Your task to perform on an android device: move a message to another label in the gmail app Image 0: 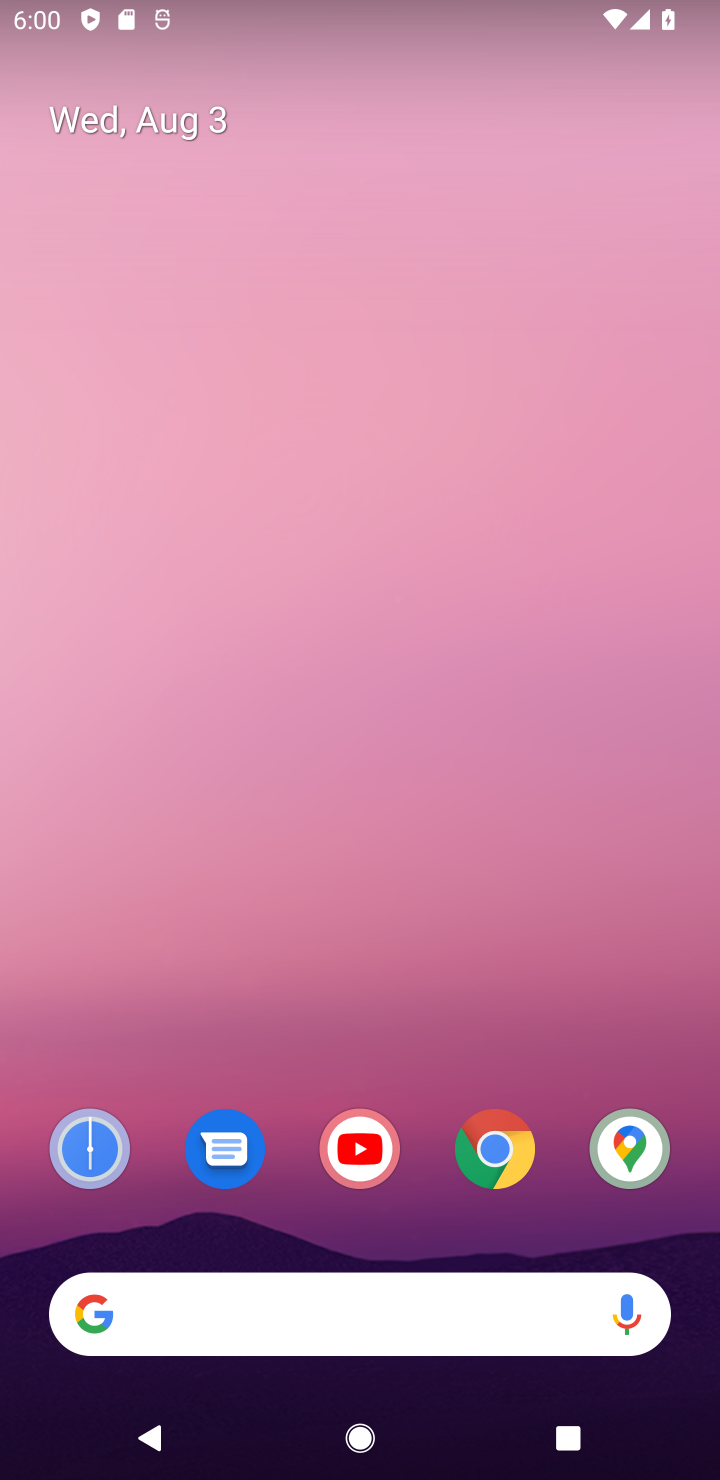
Step 0: drag from (332, 1050) to (319, 0)
Your task to perform on an android device: move a message to another label in the gmail app Image 1: 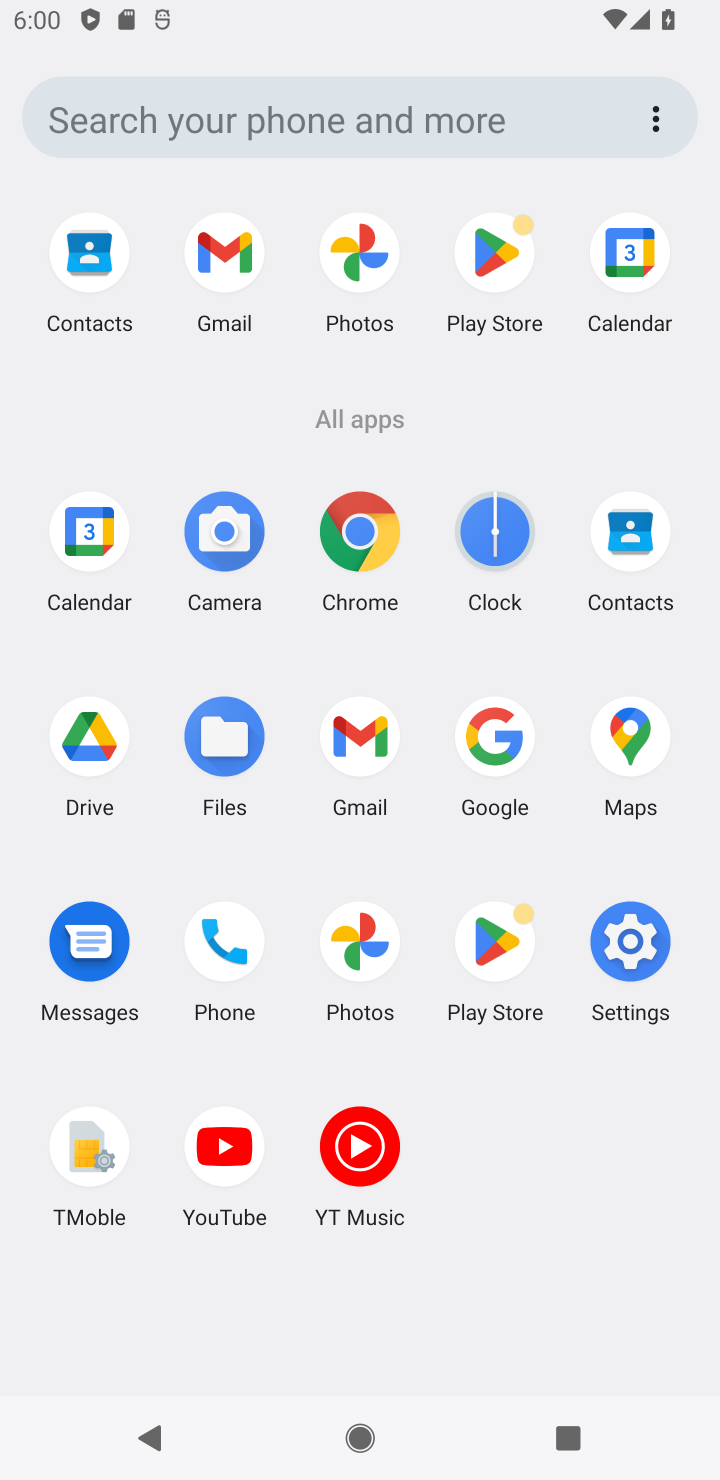
Step 1: click (372, 768)
Your task to perform on an android device: move a message to another label in the gmail app Image 2: 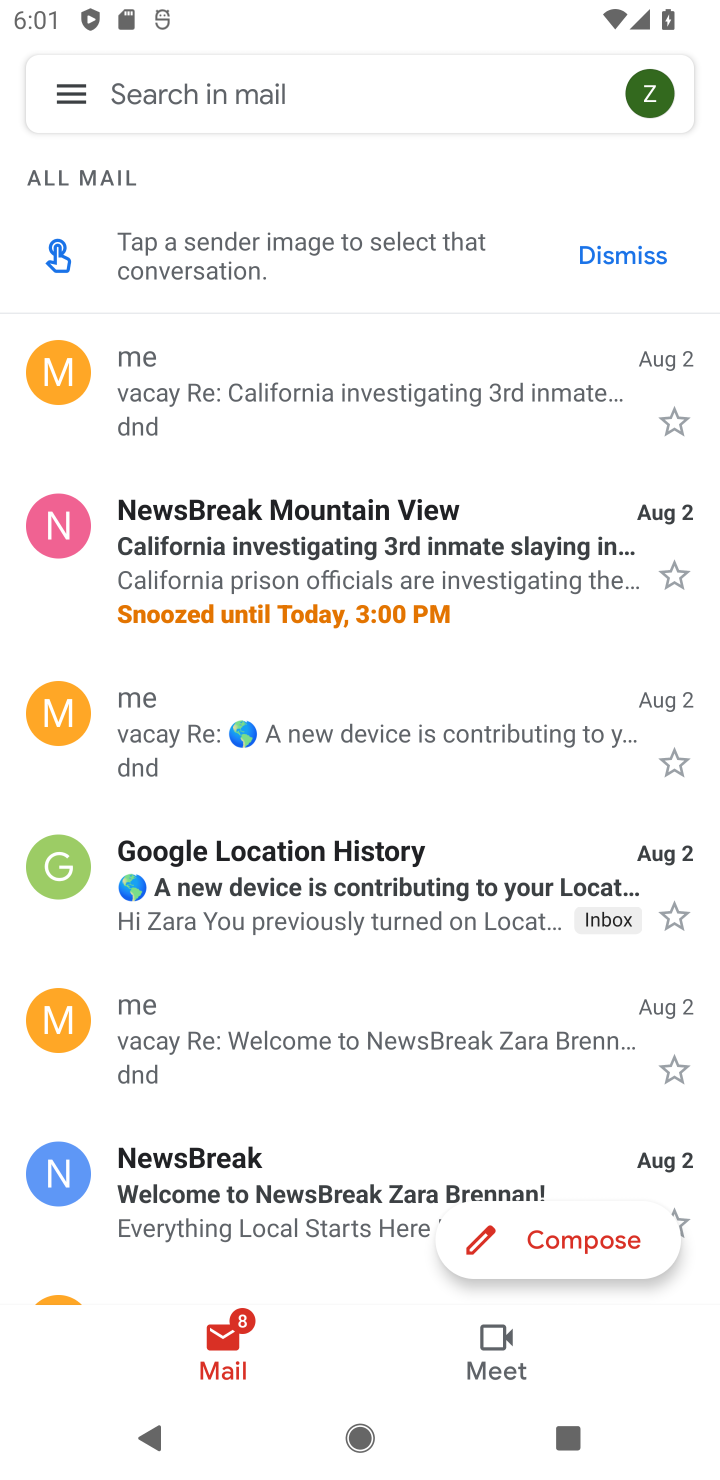
Step 2: click (135, 551)
Your task to perform on an android device: move a message to another label in the gmail app Image 3: 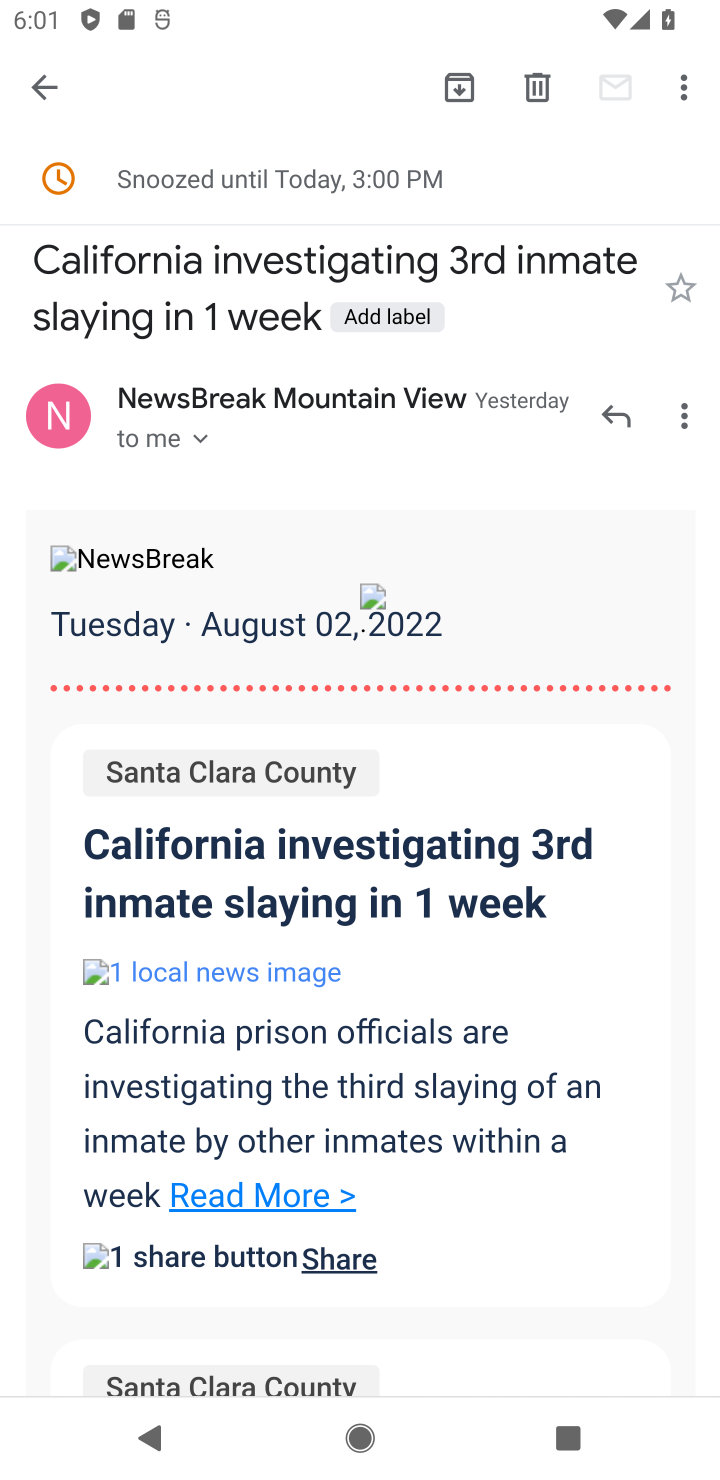
Step 3: click (385, 325)
Your task to perform on an android device: move a message to another label in the gmail app Image 4: 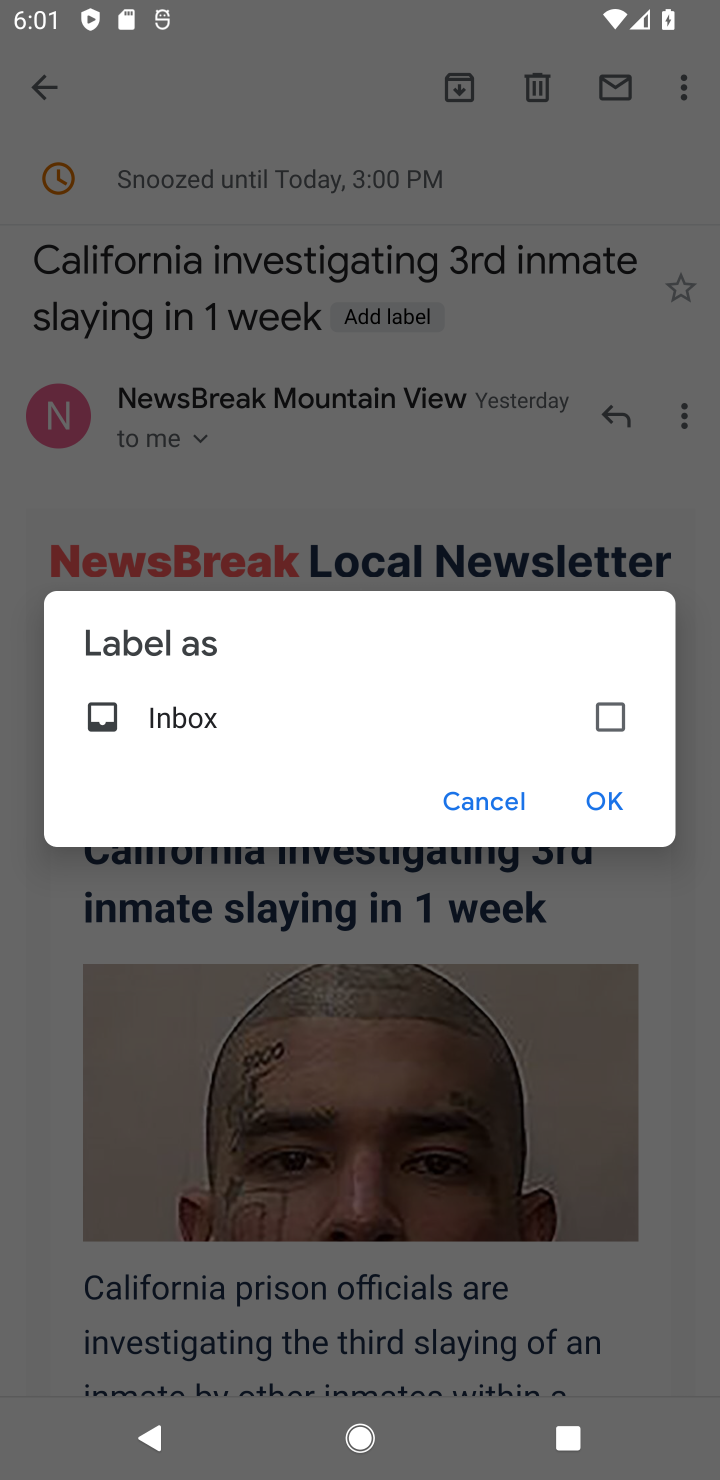
Step 4: click (601, 732)
Your task to perform on an android device: move a message to another label in the gmail app Image 5: 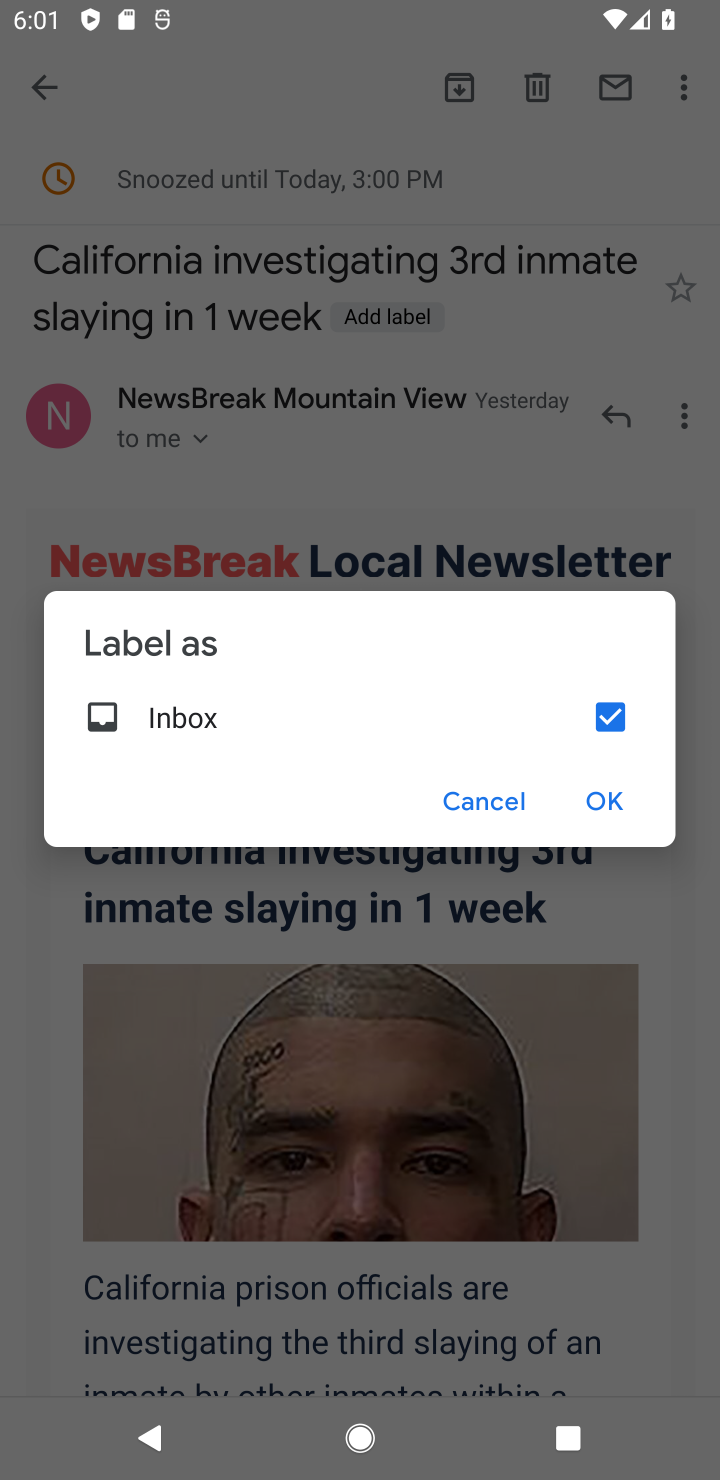
Step 5: click (611, 819)
Your task to perform on an android device: move a message to another label in the gmail app Image 6: 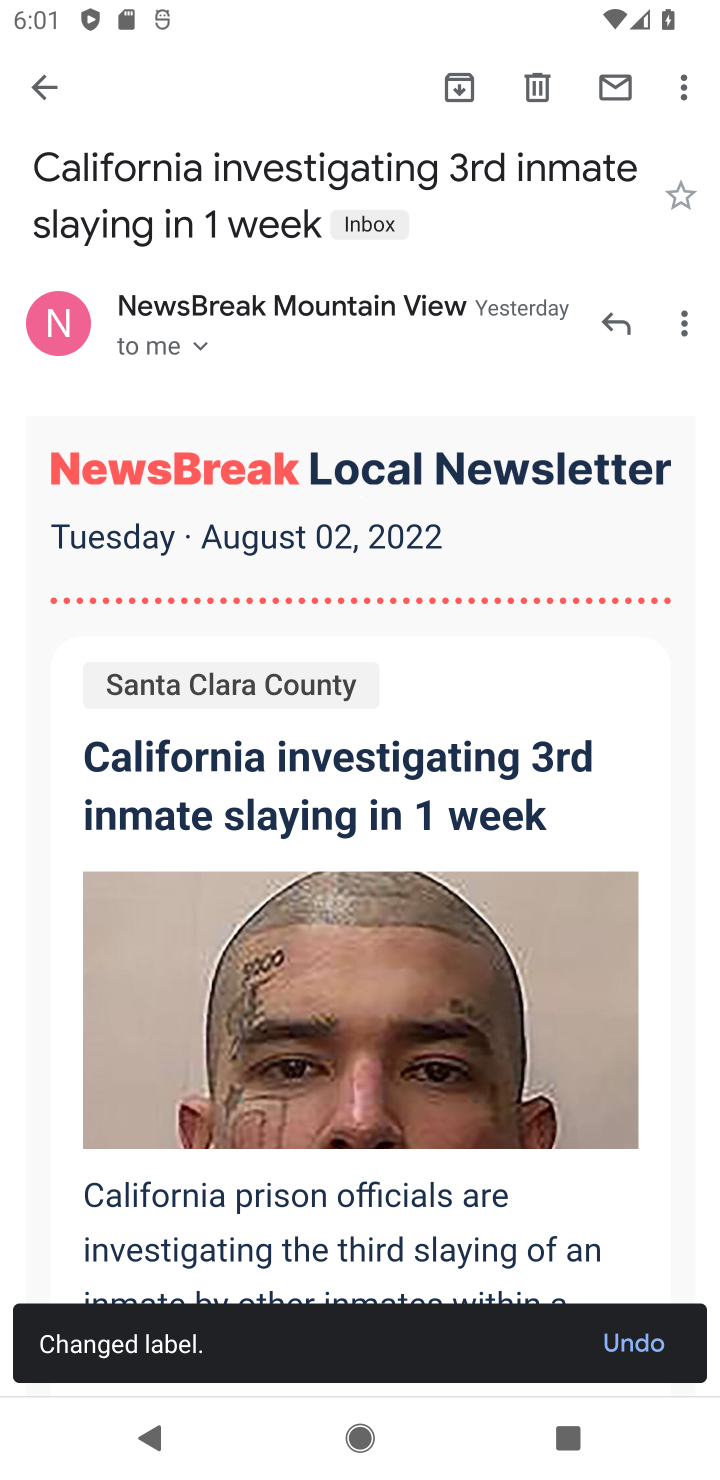
Step 6: task complete